Your task to perform on an android device: Open the phone app and click the voicemail tab. Image 0: 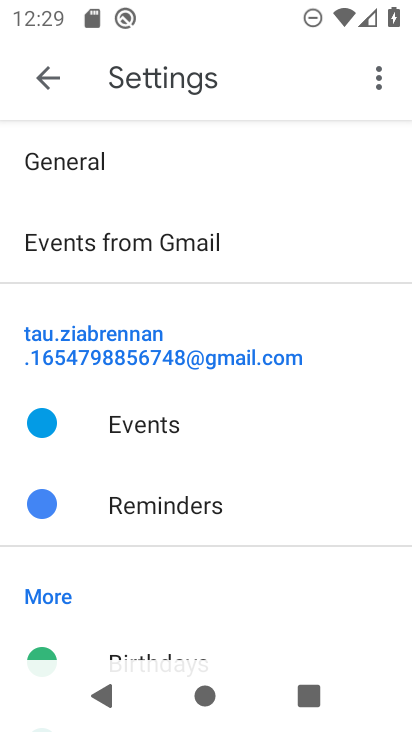
Step 0: press back button
Your task to perform on an android device: Open the phone app and click the voicemail tab. Image 1: 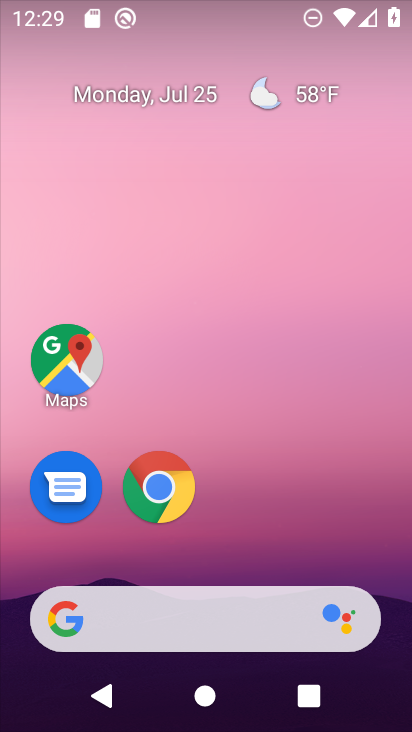
Step 1: drag from (228, 533) to (320, 22)
Your task to perform on an android device: Open the phone app and click the voicemail tab. Image 2: 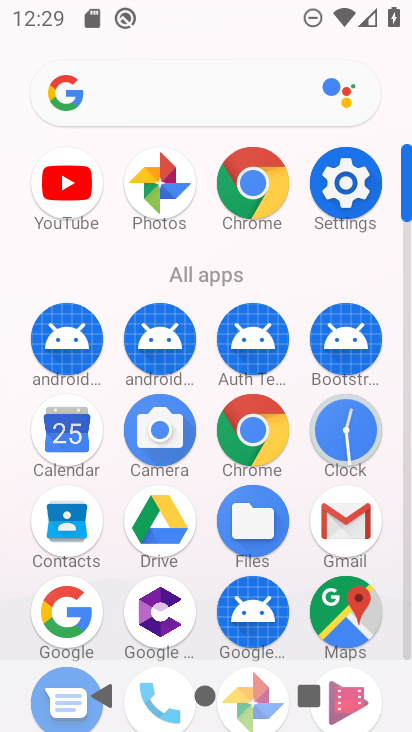
Step 2: drag from (187, 545) to (257, 171)
Your task to perform on an android device: Open the phone app and click the voicemail tab. Image 3: 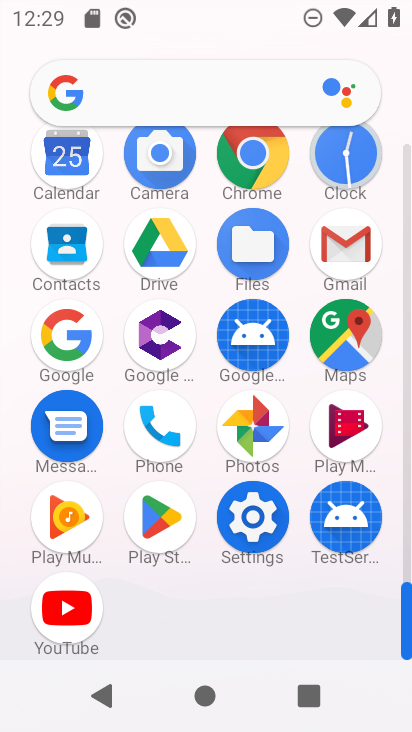
Step 3: click (144, 442)
Your task to perform on an android device: Open the phone app and click the voicemail tab. Image 4: 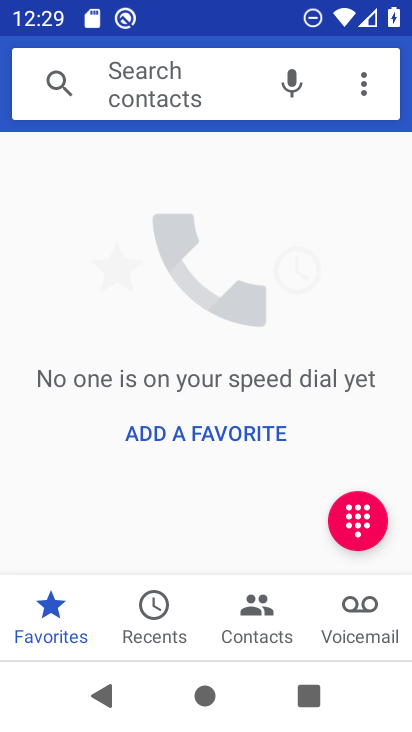
Step 4: click (365, 625)
Your task to perform on an android device: Open the phone app and click the voicemail tab. Image 5: 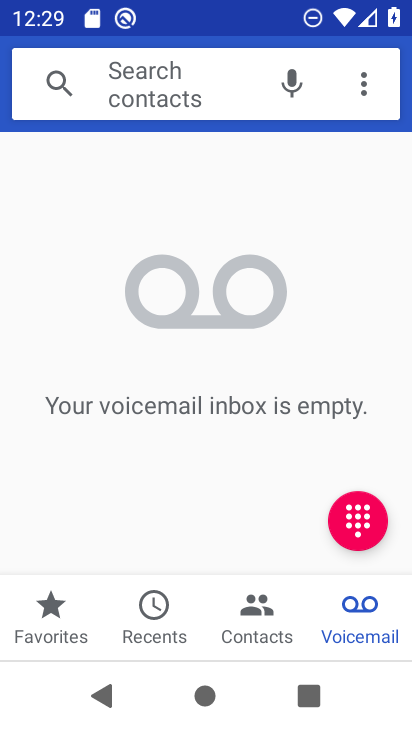
Step 5: task complete